Your task to perform on an android device: turn off sleep mode Image 0: 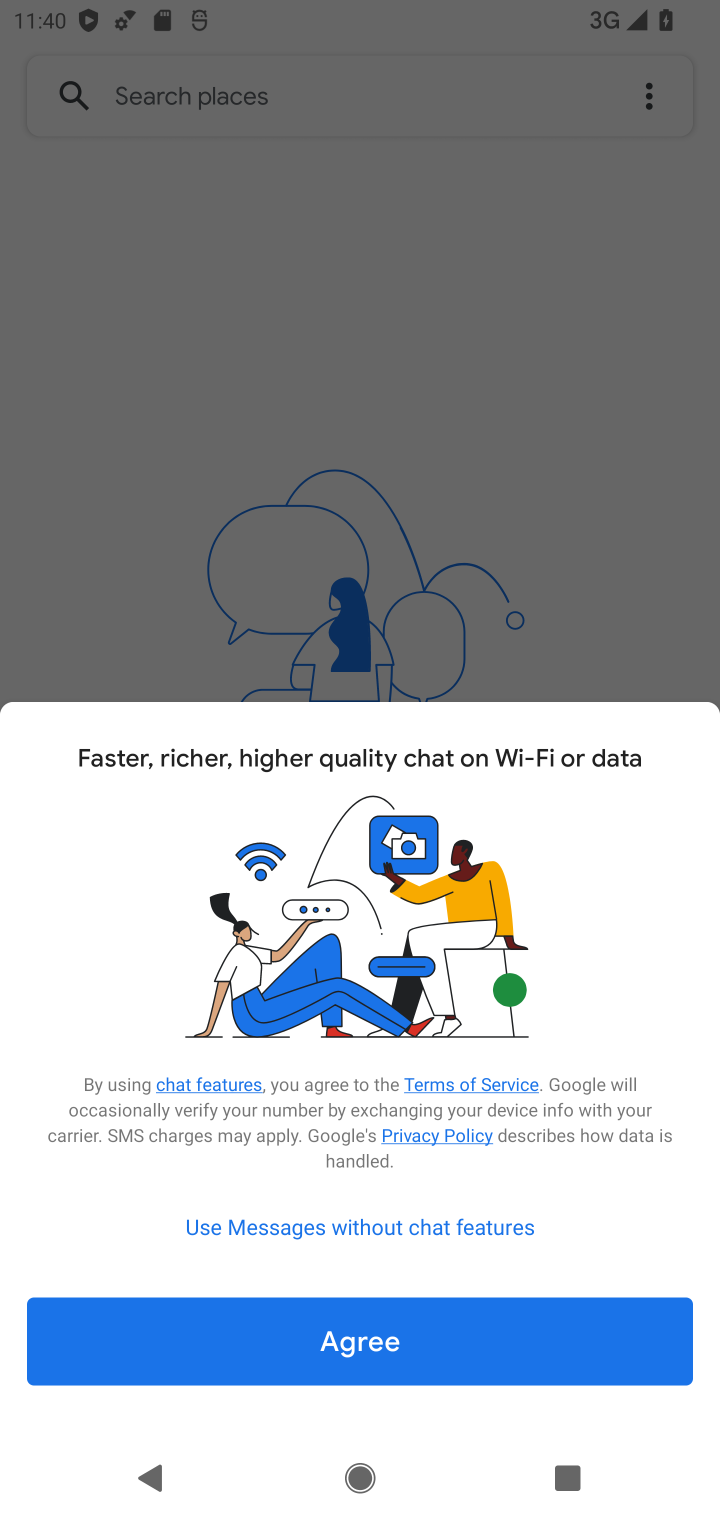
Step 0: press home button
Your task to perform on an android device: turn off sleep mode Image 1: 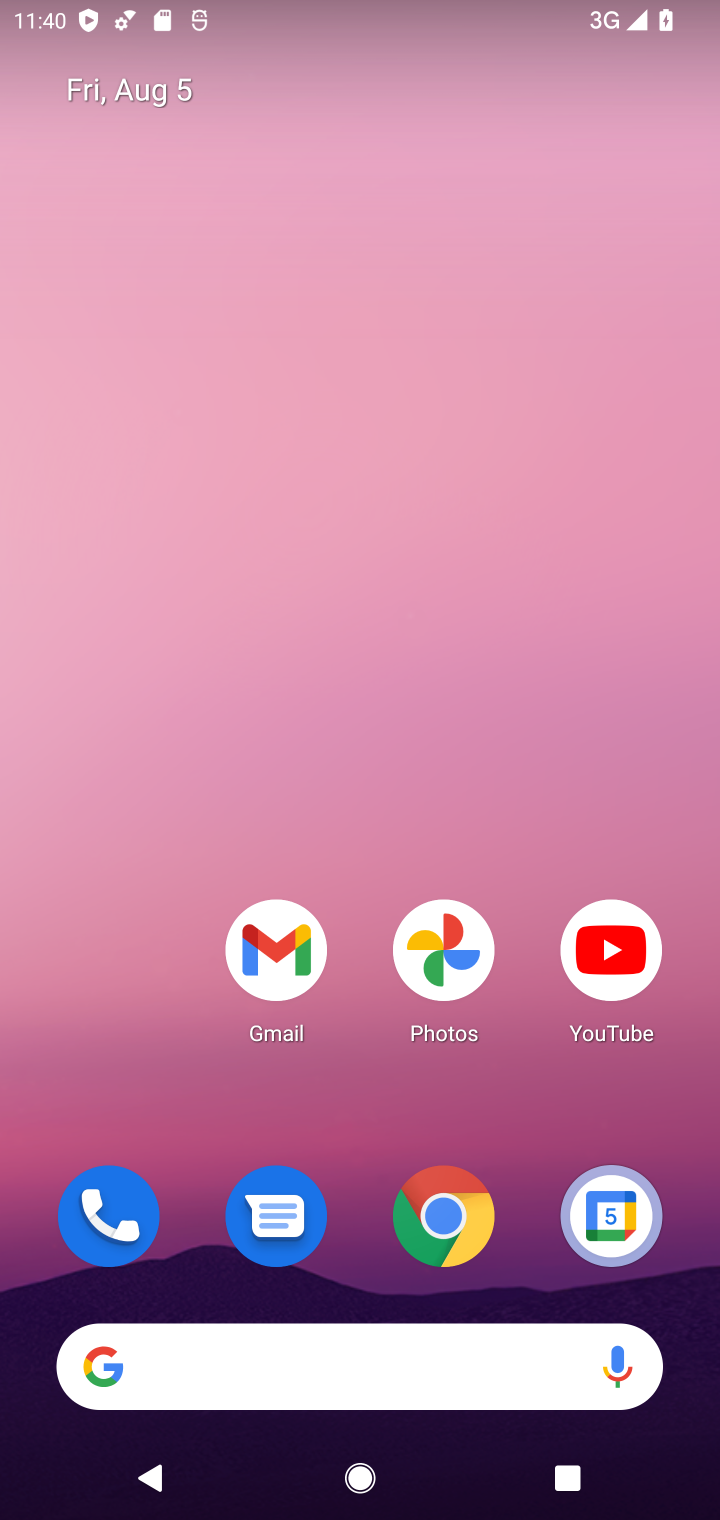
Step 1: drag from (444, 1360) to (485, 203)
Your task to perform on an android device: turn off sleep mode Image 2: 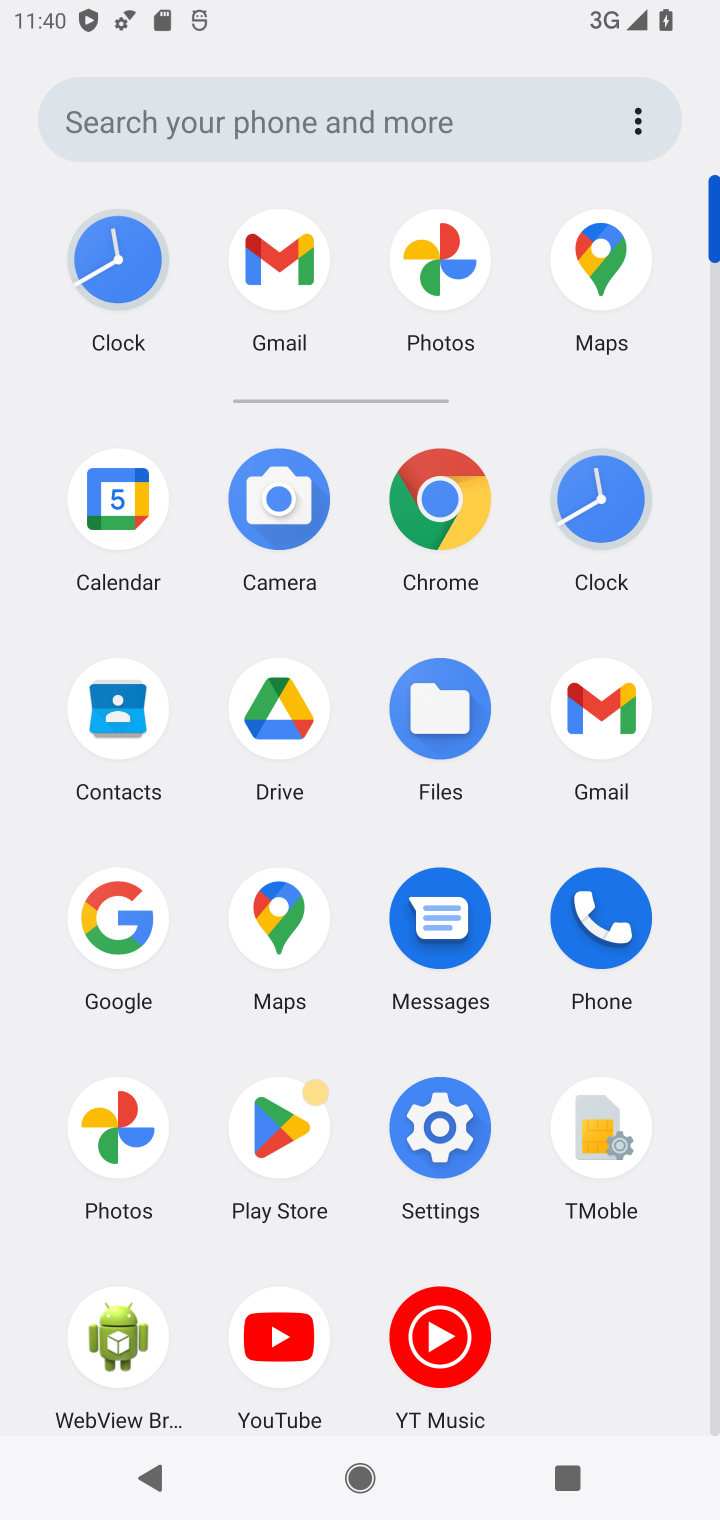
Step 2: click (432, 1148)
Your task to perform on an android device: turn off sleep mode Image 3: 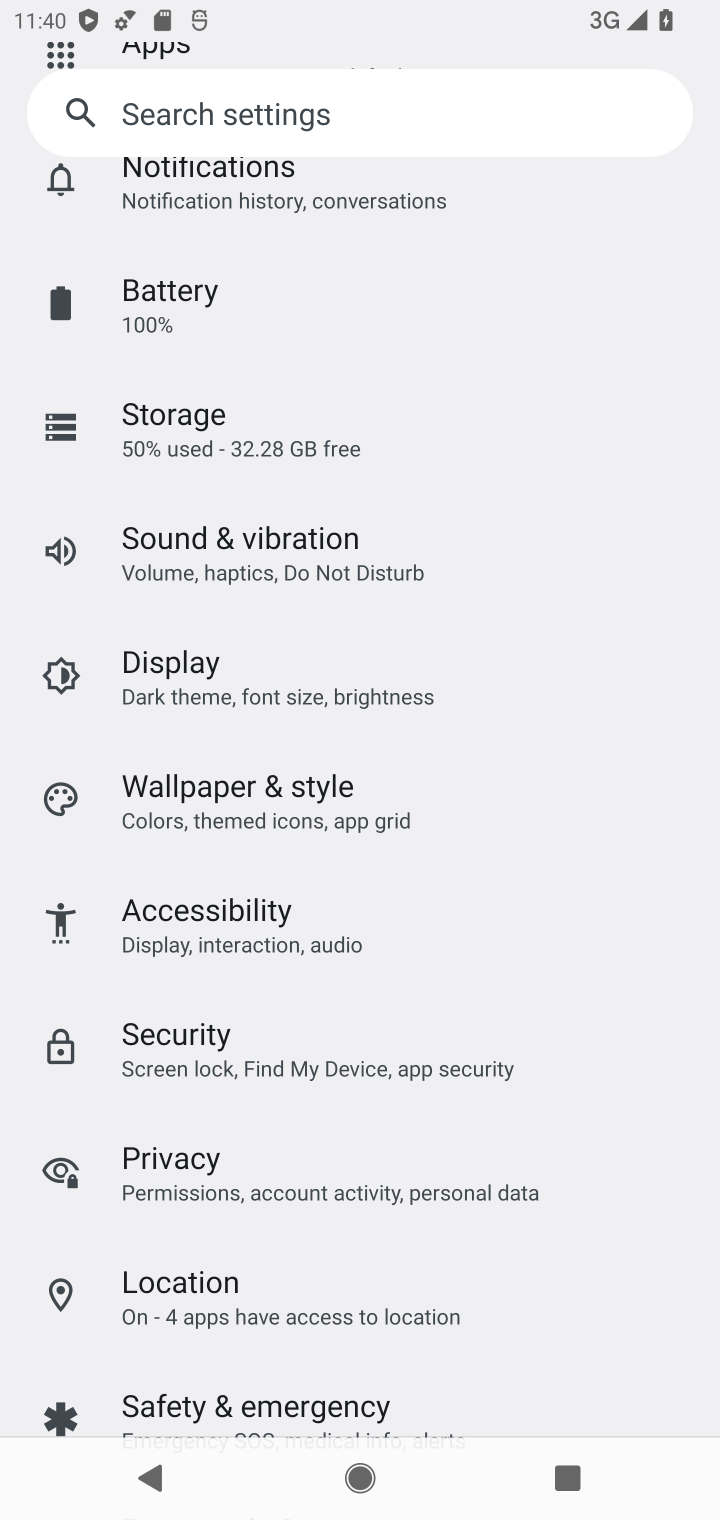
Step 3: drag from (640, 423) to (622, 1349)
Your task to perform on an android device: turn off sleep mode Image 4: 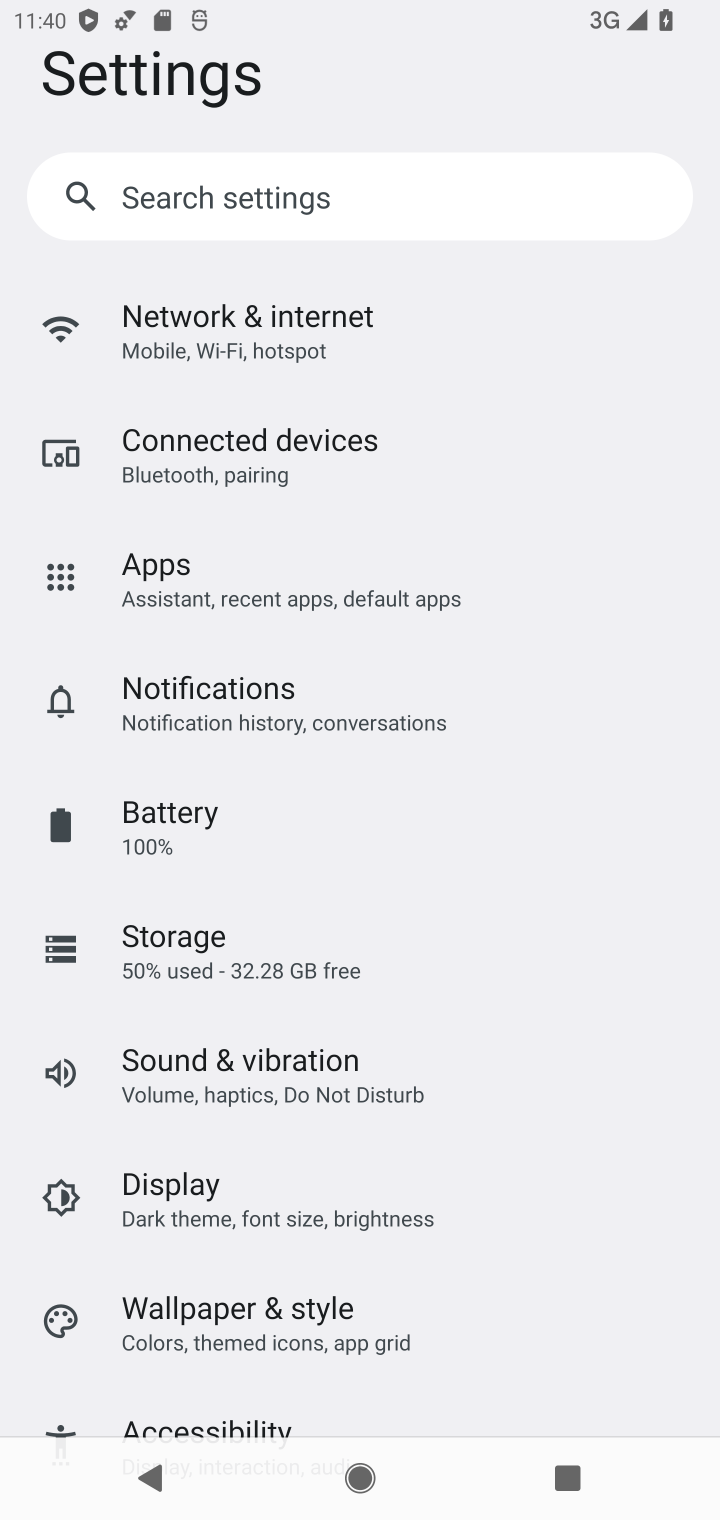
Step 4: click (313, 1212)
Your task to perform on an android device: turn off sleep mode Image 5: 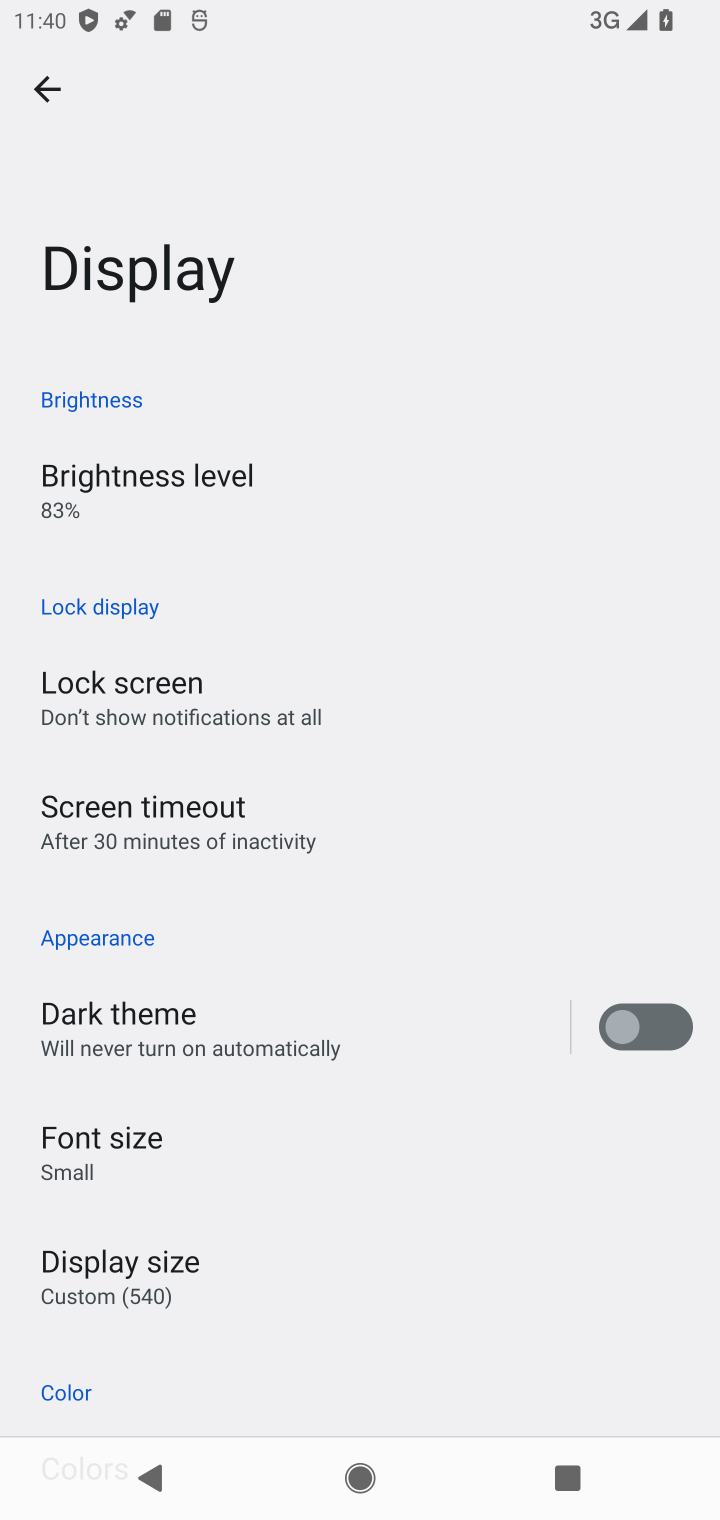
Step 5: task complete